Your task to perform on an android device: change notifications settings Image 0: 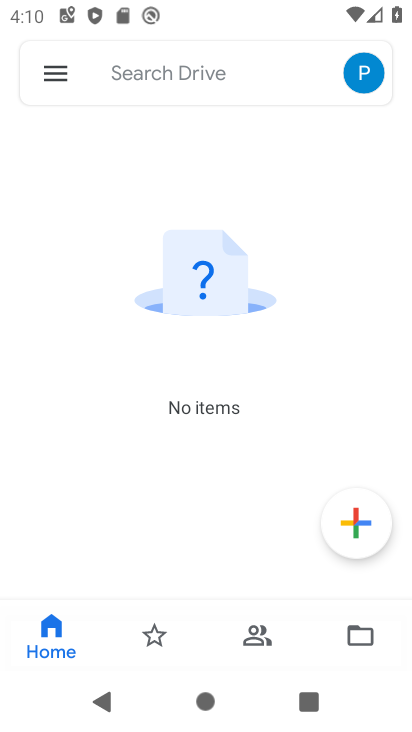
Step 0: press home button
Your task to perform on an android device: change notifications settings Image 1: 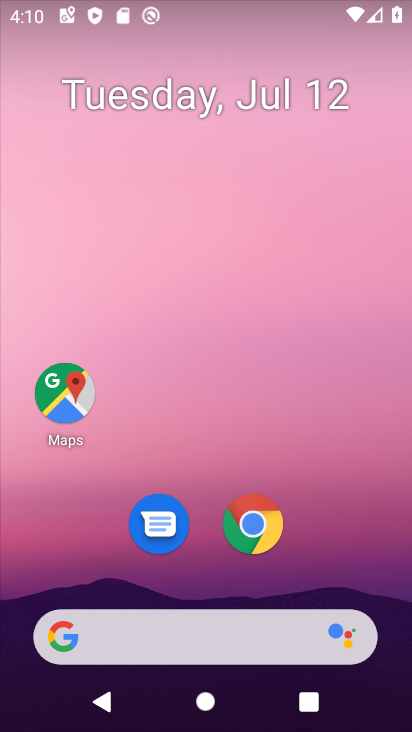
Step 1: drag from (326, 560) to (313, 46)
Your task to perform on an android device: change notifications settings Image 2: 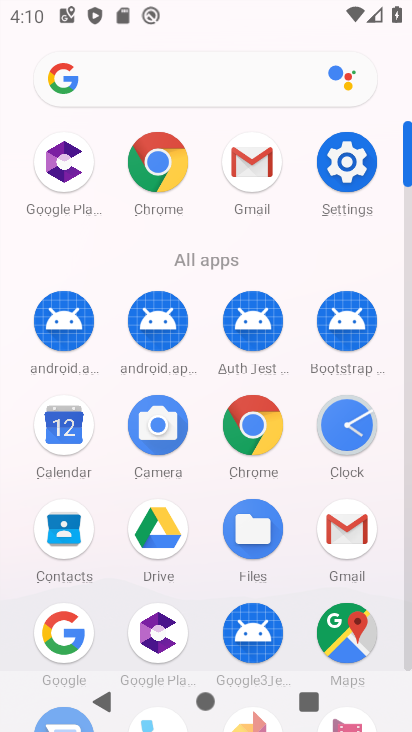
Step 2: click (348, 150)
Your task to perform on an android device: change notifications settings Image 3: 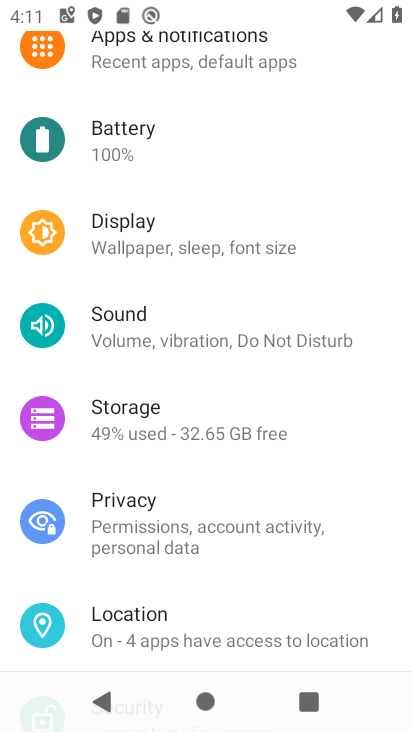
Step 3: drag from (257, 168) to (246, 655)
Your task to perform on an android device: change notifications settings Image 4: 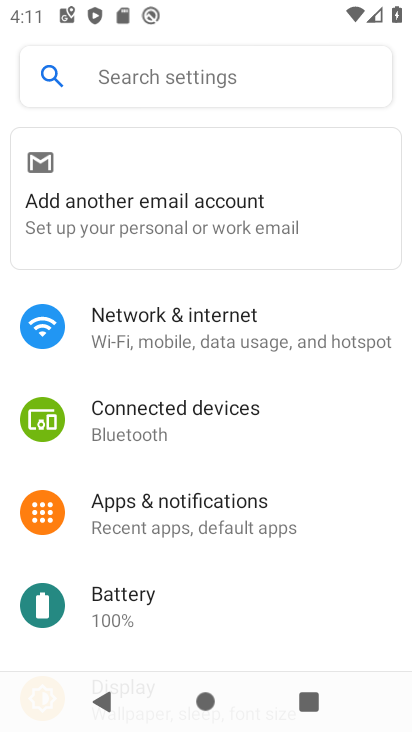
Step 4: click (221, 506)
Your task to perform on an android device: change notifications settings Image 5: 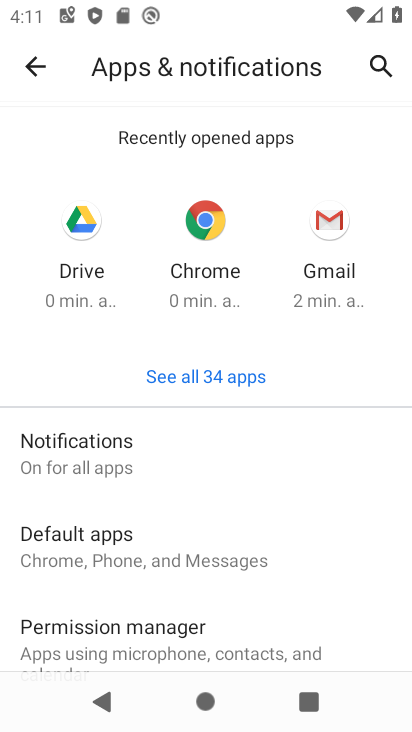
Step 5: click (114, 454)
Your task to perform on an android device: change notifications settings Image 6: 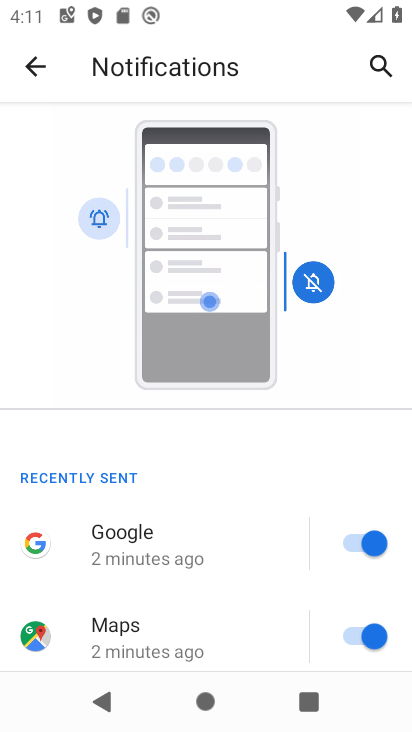
Step 6: drag from (243, 532) to (301, 57)
Your task to perform on an android device: change notifications settings Image 7: 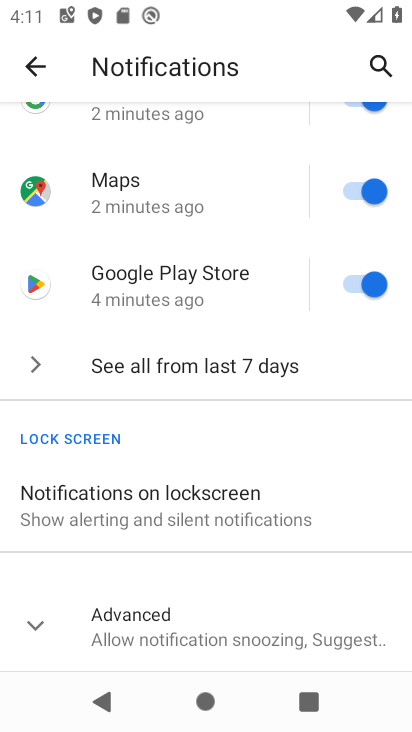
Step 7: click (257, 366)
Your task to perform on an android device: change notifications settings Image 8: 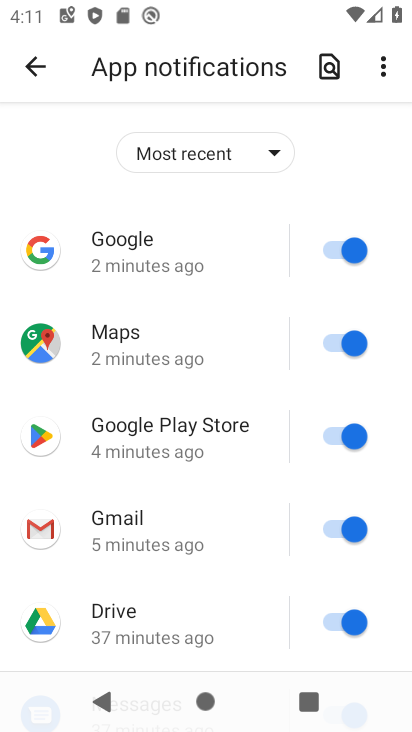
Step 8: click (341, 249)
Your task to perform on an android device: change notifications settings Image 9: 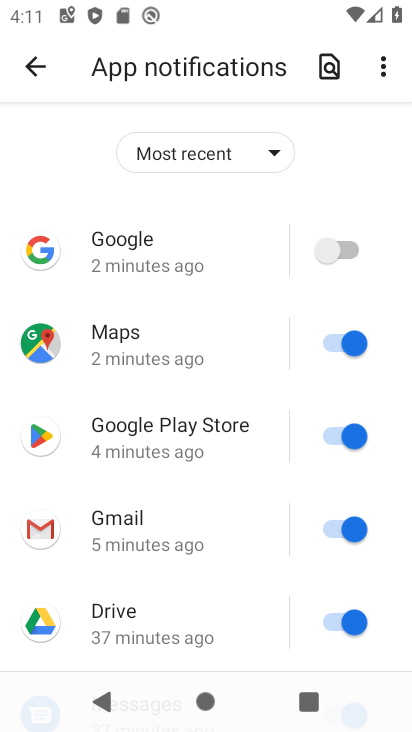
Step 9: click (344, 330)
Your task to perform on an android device: change notifications settings Image 10: 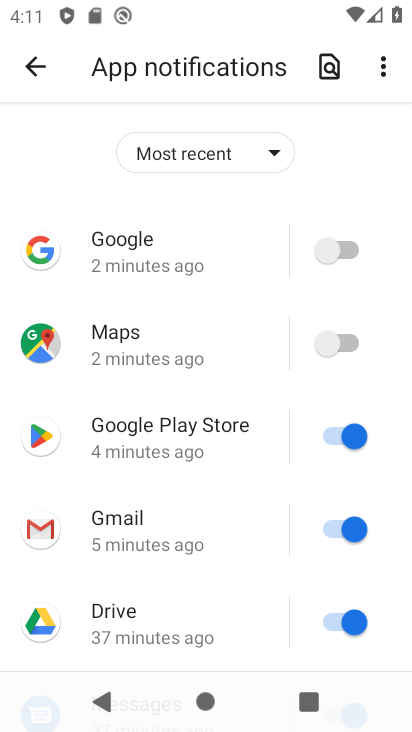
Step 10: click (349, 427)
Your task to perform on an android device: change notifications settings Image 11: 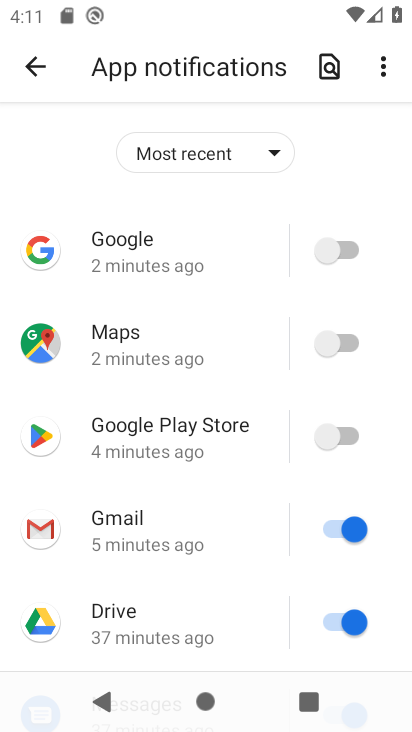
Step 11: click (342, 522)
Your task to perform on an android device: change notifications settings Image 12: 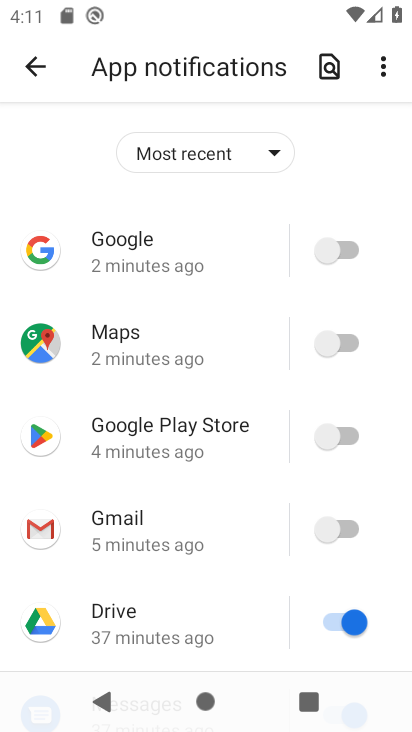
Step 12: click (342, 613)
Your task to perform on an android device: change notifications settings Image 13: 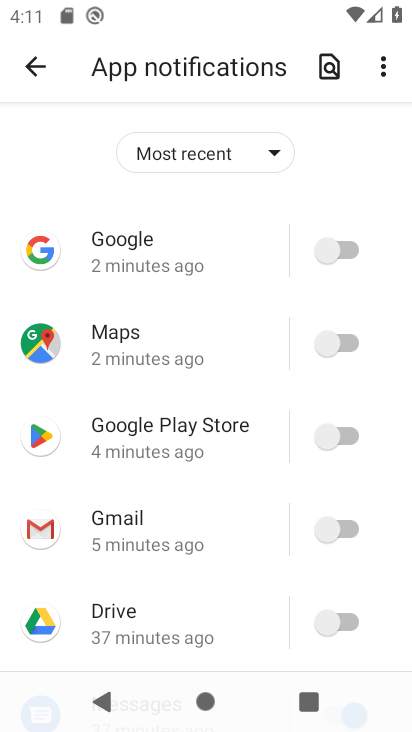
Step 13: drag from (249, 529) to (297, 58)
Your task to perform on an android device: change notifications settings Image 14: 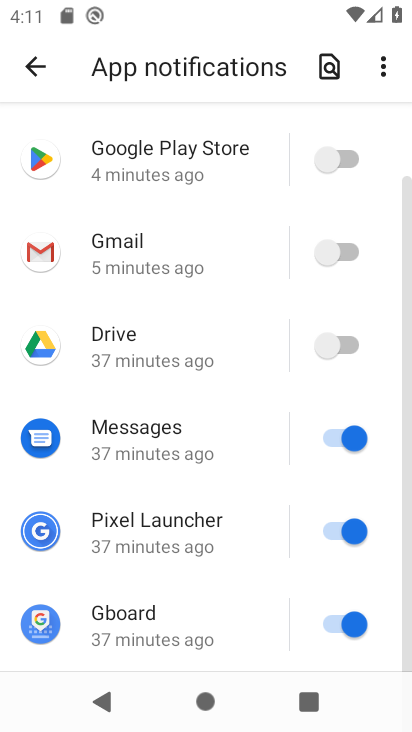
Step 14: click (344, 438)
Your task to perform on an android device: change notifications settings Image 15: 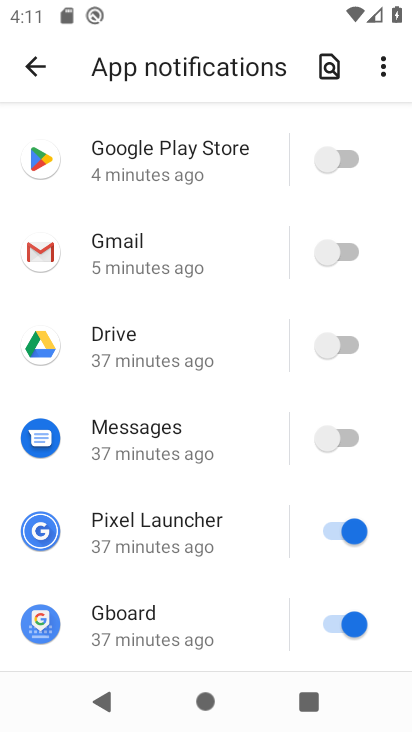
Step 15: click (352, 512)
Your task to perform on an android device: change notifications settings Image 16: 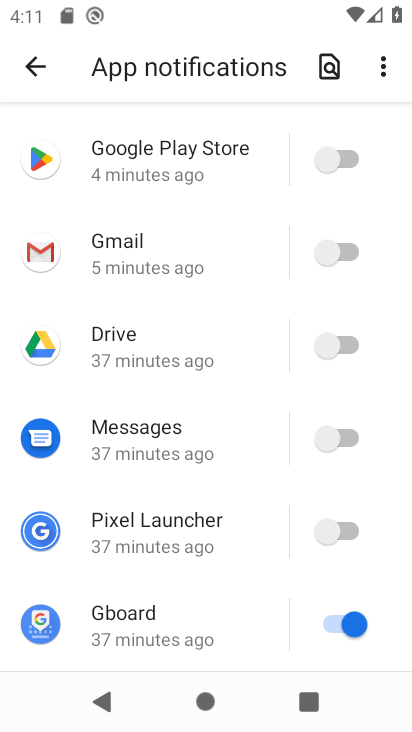
Step 16: click (343, 626)
Your task to perform on an android device: change notifications settings Image 17: 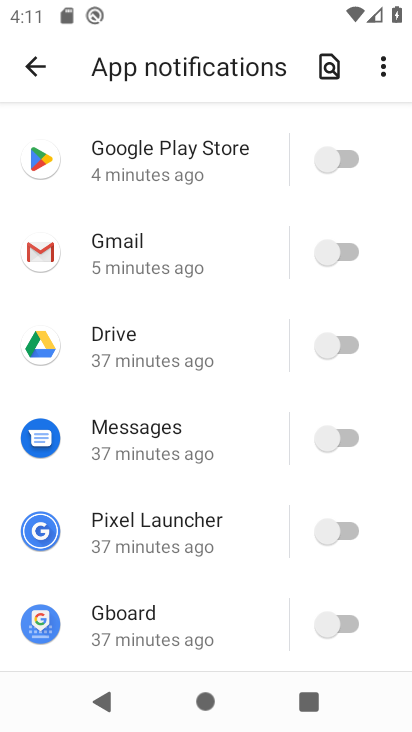
Step 17: task complete